Your task to perform on an android device: move an email to a new category in the gmail app Image 0: 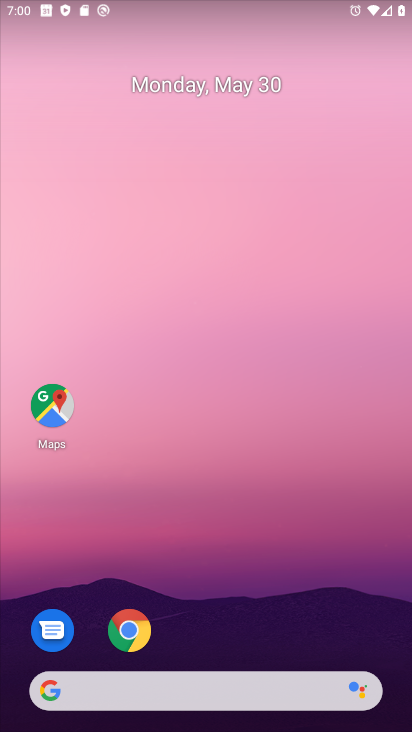
Step 0: drag from (360, 624) to (202, 33)
Your task to perform on an android device: move an email to a new category in the gmail app Image 1: 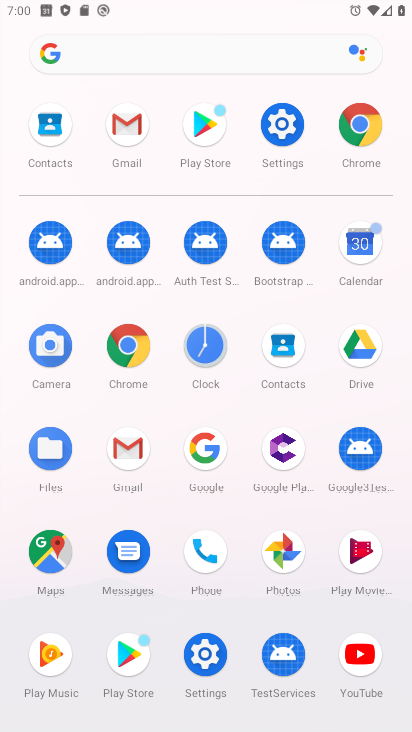
Step 1: click (133, 461)
Your task to perform on an android device: move an email to a new category in the gmail app Image 2: 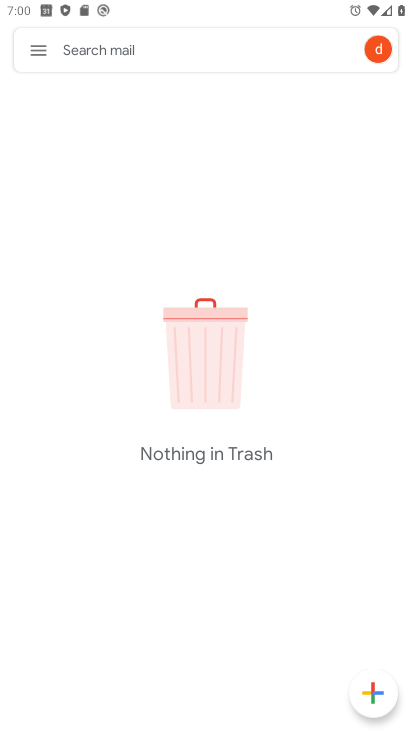
Step 2: click (26, 56)
Your task to perform on an android device: move an email to a new category in the gmail app Image 3: 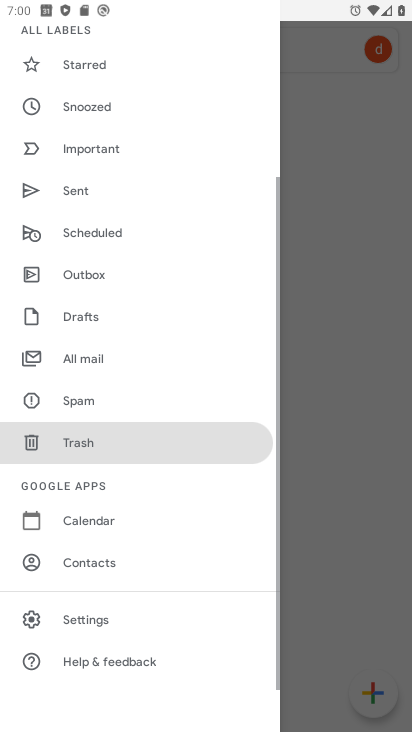
Step 3: drag from (28, 57) to (143, 704)
Your task to perform on an android device: move an email to a new category in the gmail app Image 4: 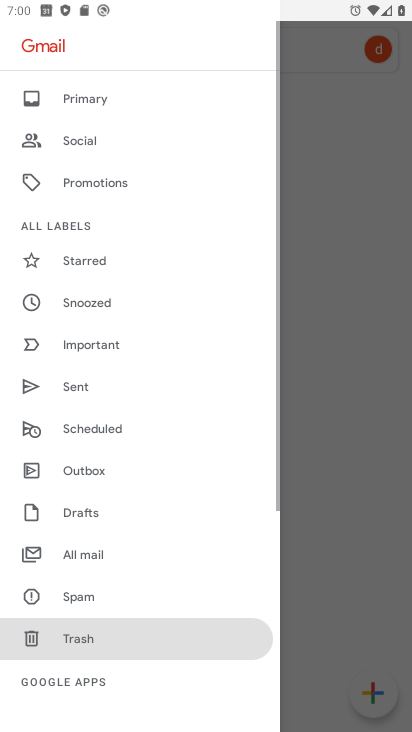
Step 4: click (159, 93)
Your task to perform on an android device: move an email to a new category in the gmail app Image 5: 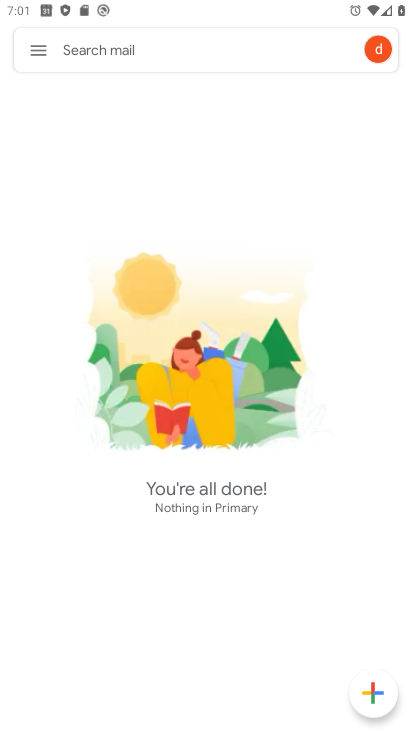
Step 5: task complete